Your task to perform on an android device: visit the assistant section in the google photos Image 0: 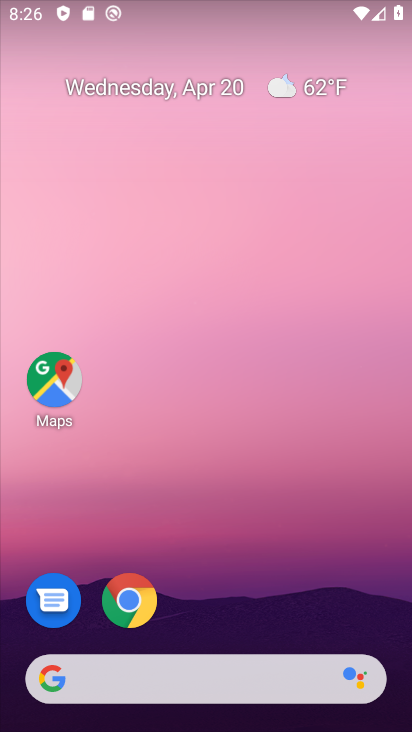
Step 0: drag from (193, 721) to (184, 60)
Your task to perform on an android device: visit the assistant section in the google photos Image 1: 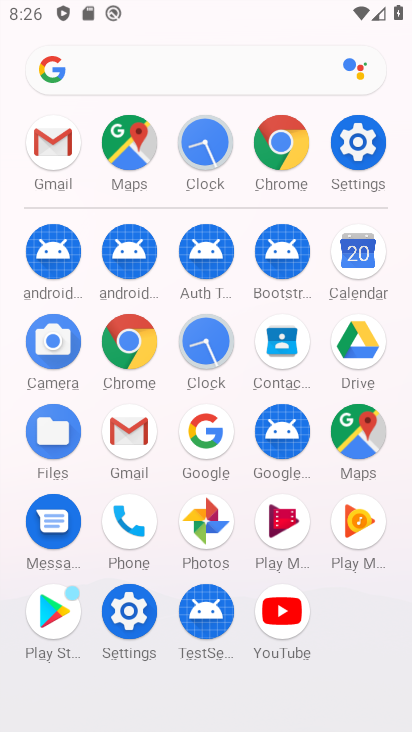
Step 1: click (210, 525)
Your task to perform on an android device: visit the assistant section in the google photos Image 2: 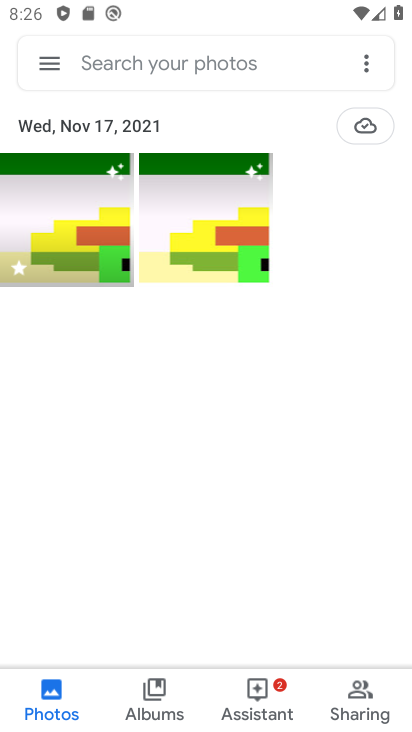
Step 2: click (257, 703)
Your task to perform on an android device: visit the assistant section in the google photos Image 3: 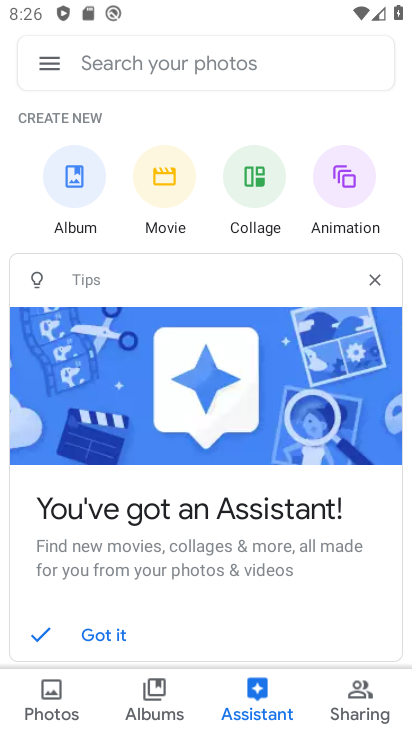
Step 3: task complete